Your task to perform on an android device: Open Yahoo.com Image 0: 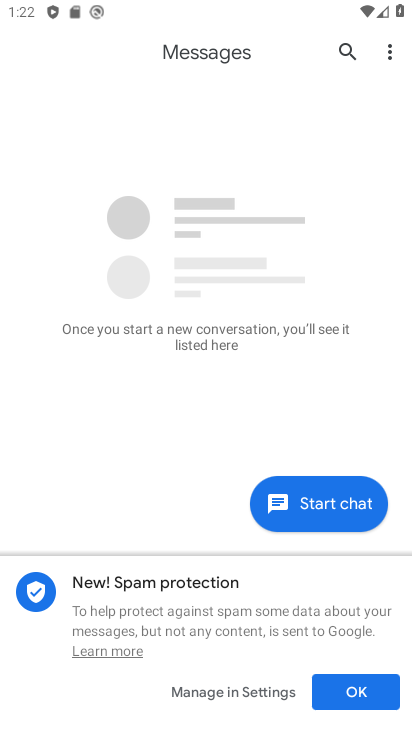
Step 0: press home button
Your task to perform on an android device: Open Yahoo.com Image 1: 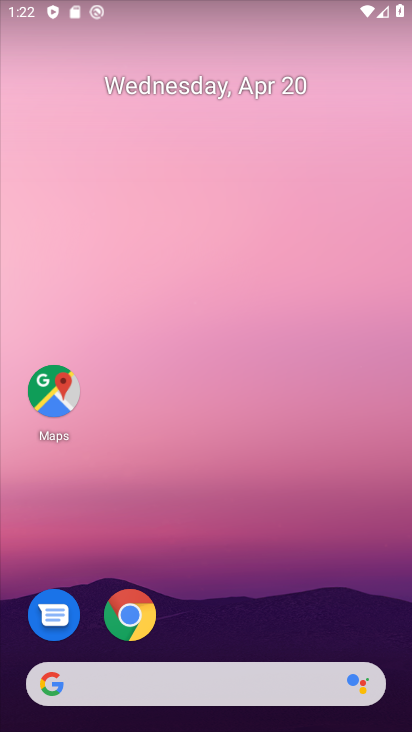
Step 1: drag from (230, 614) to (232, 230)
Your task to perform on an android device: Open Yahoo.com Image 2: 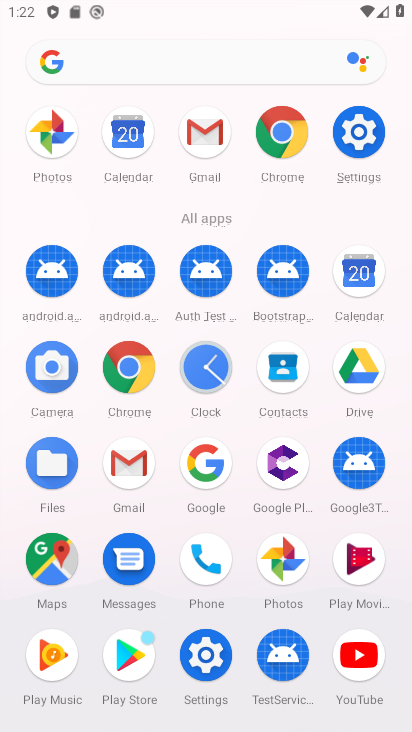
Step 2: click (288, 146)
Your task to perform on an android device: Open Yahoo.com Image 3: 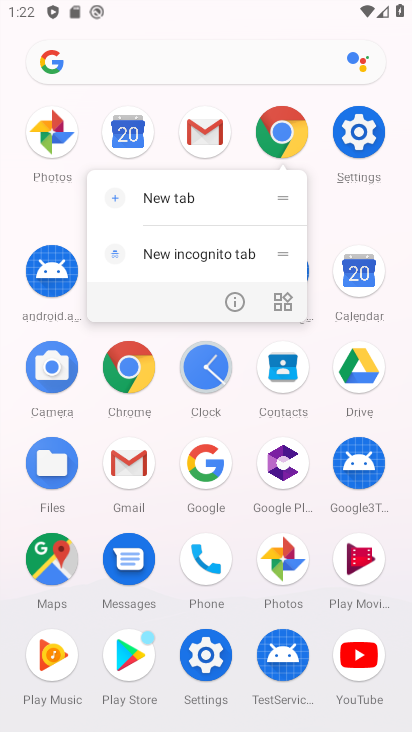
Step 3: click (288, 146)
Your task to perform on an android device: Open Yahoo.com Image 4: 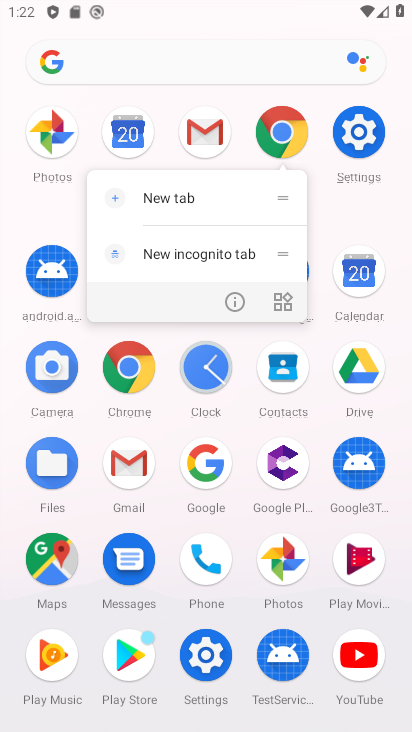
Step 4: click (288, 146)
Your task to perform on an android device: Open Yahoo.com Image 5: 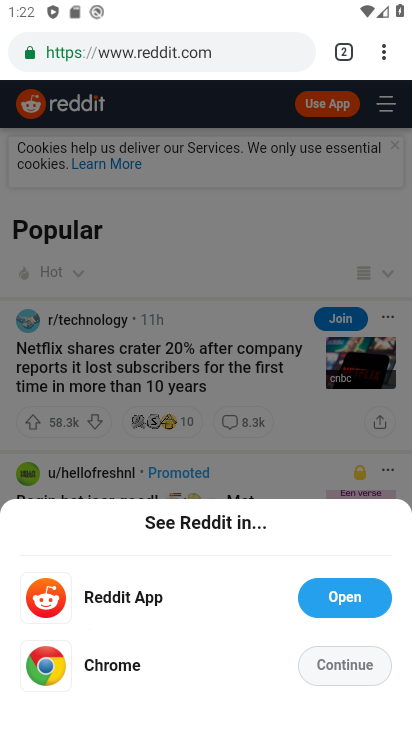
Step 5: click (198, 41)
Your task to perform on an android device: Open Yahoo.com Image 6: 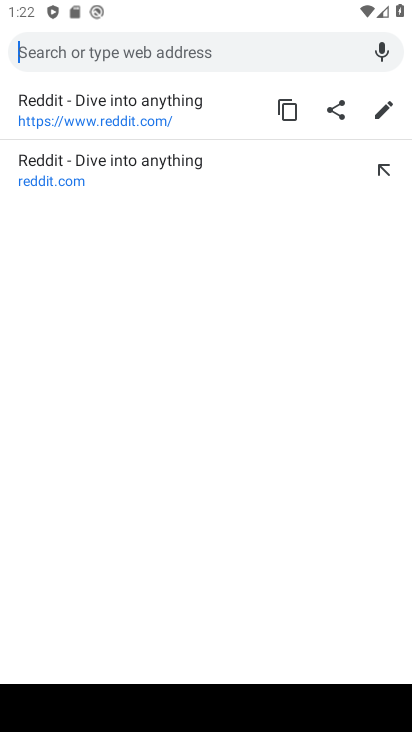
Step 6: type "yahoo.com"
Your task to perform on an android device: Open Yahoo.com Image 7: 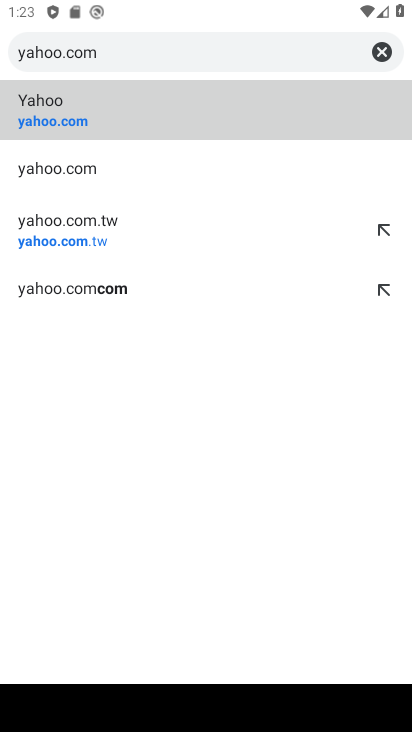
Step 7: click (110, 103)
Your task to perform on an android device: Open Yahoo.com Image 8: 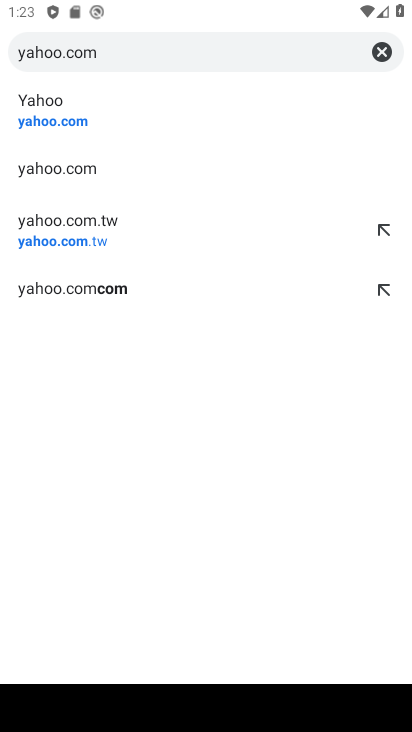
Step 8: click (63, 132)
Your task to perform on an android device: Open Yahoo.com Image 9: 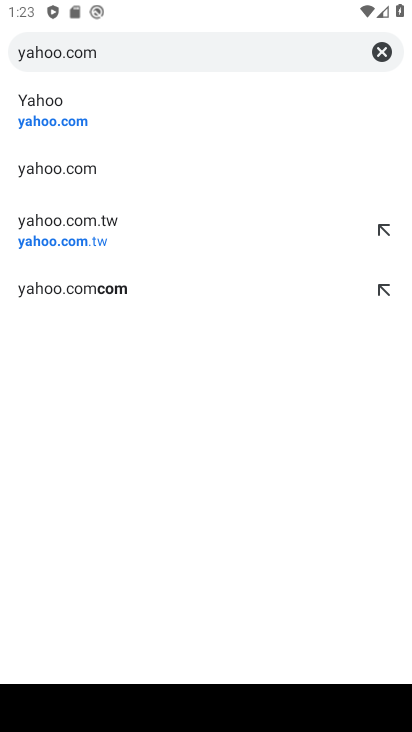
Step 9: click (64, 131)
Your task to perform on an android device: Open Yahoo.com Image 10: 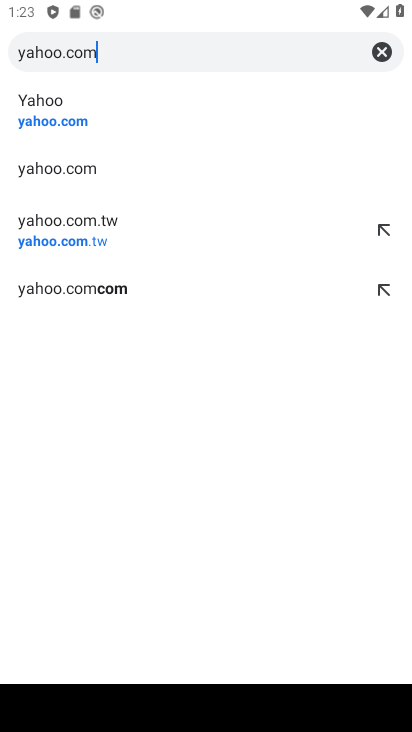
Step 10: click (59, 109)
Your task to perform on an android device: Open Yahoo.com Image 11: 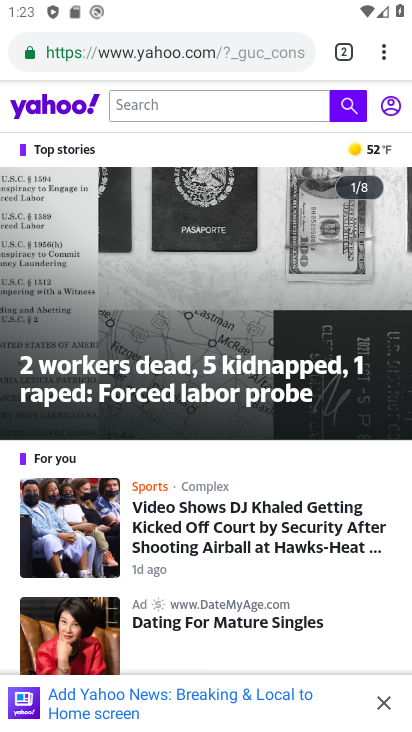
Step 11: task complete